Your task to perform on an android device: Go to wifi settings Image 0: 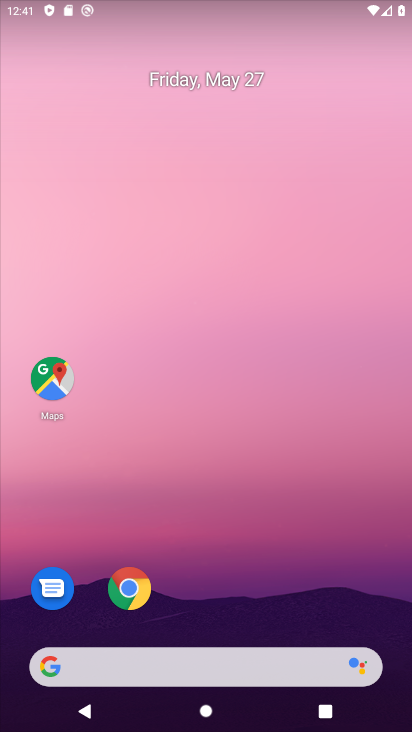
Step 0: press home button
Your task to perform on an android device: Go to wifi settings Image 1: 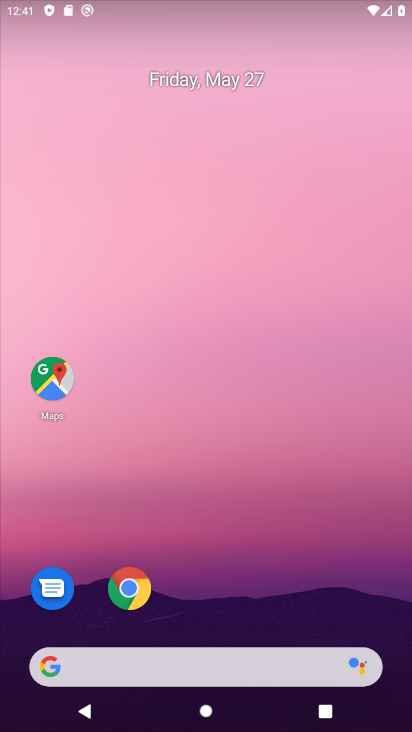
Step 1: drag from (206, 650) to (187, 9)
Your task to perform on an android device: Go to wifi settings Image 2: 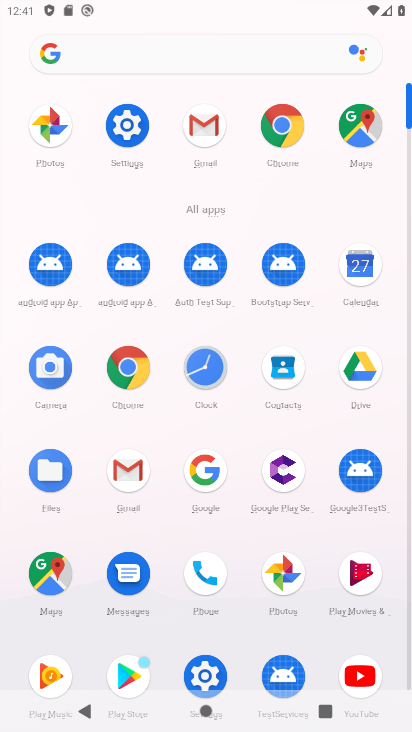
Step 2: click (128, 124)
Your task to perform on an android device: Go to wifi settings Image 3: 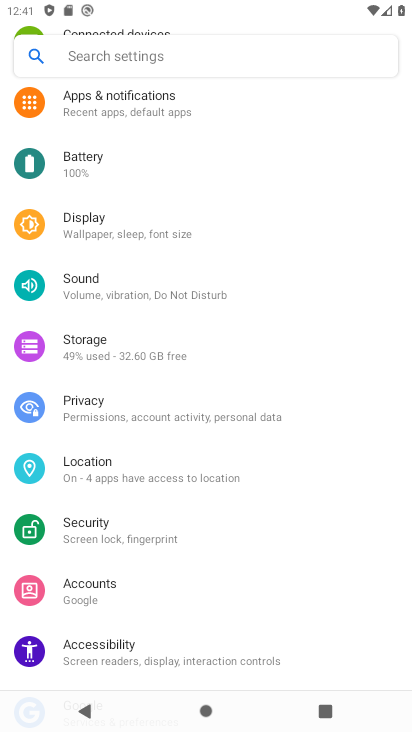
Step 3: drag from (92, 125) to (73, 560)
Your task to perform on an android device: Go to wifi settings Image 4: 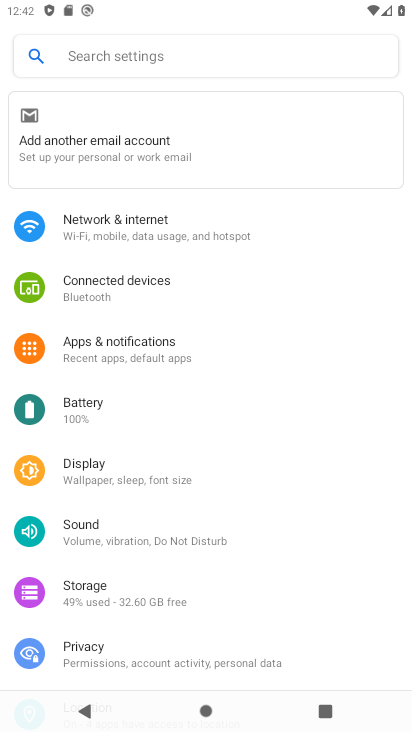
Step 4: click (120, 222)
Your task to perform on an android device: Go to wifi settings Image 5: 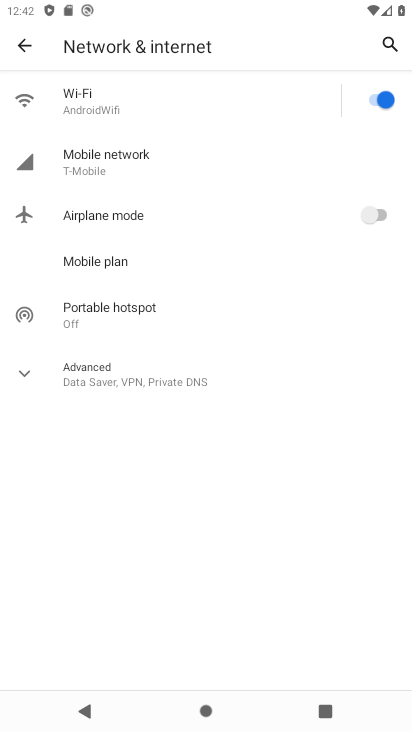
Step 5: click (95, 103)
Your task to perform on an android device: Go to wifi settings Image 6: 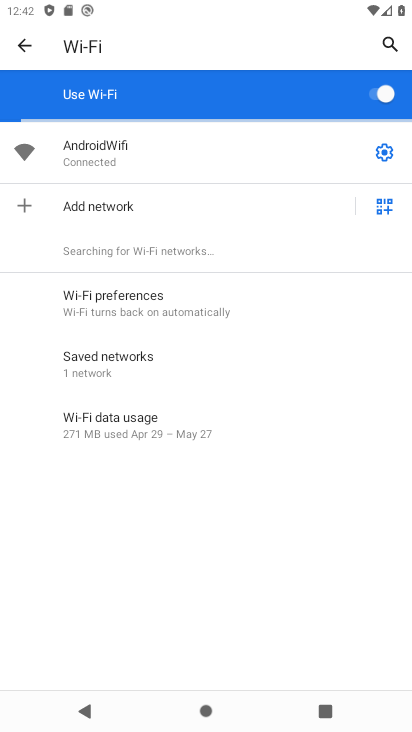
Step 6: task complete